Your task to perform on an android device: Open Google Chrome Image 0: 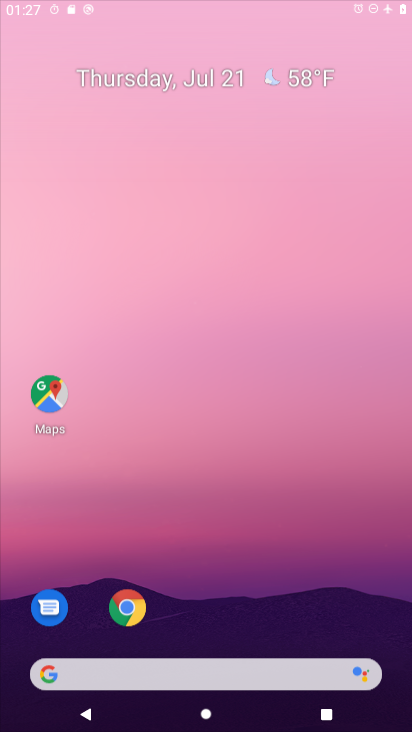
Step 0: press home button
Your task to perform on an android device: Open Google Chrome Image 1: 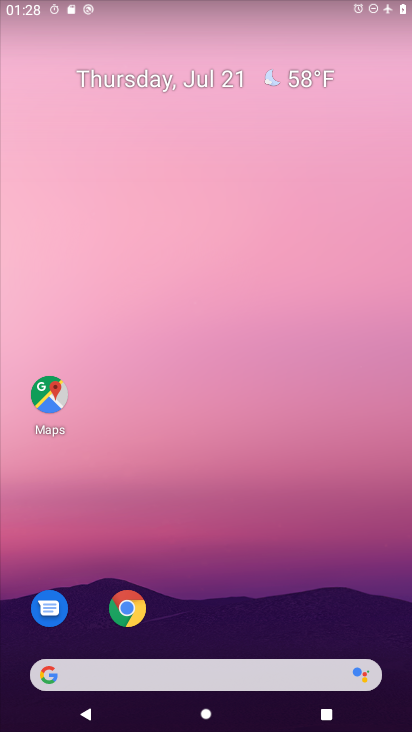
Step 1: drag from (229, 635) to (118, 156)
Your task to perform on an android device: Open Google Chrome Image 2: 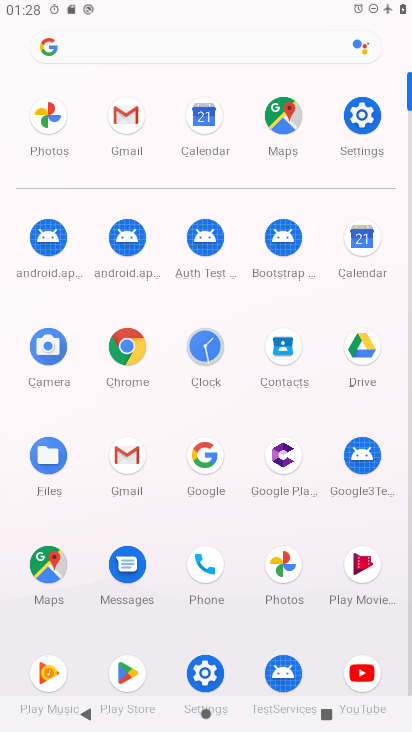
Step 2: click (123, 351)
Your task to perform on an android device: Open Google Chrome Image 3: 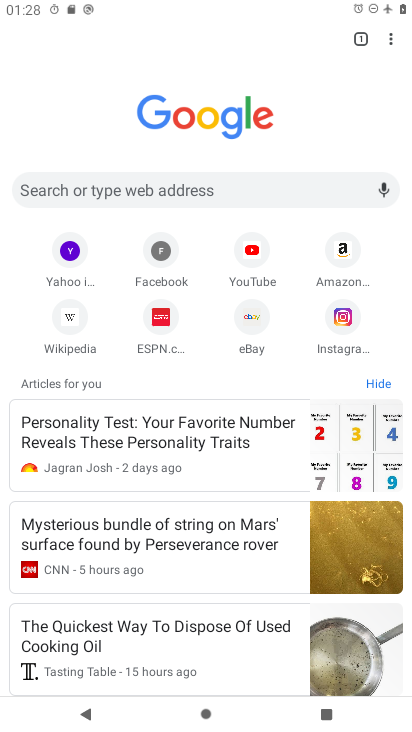
Step 3: task complete